Your task to perform on an android device: Go to Android settings Image 0: 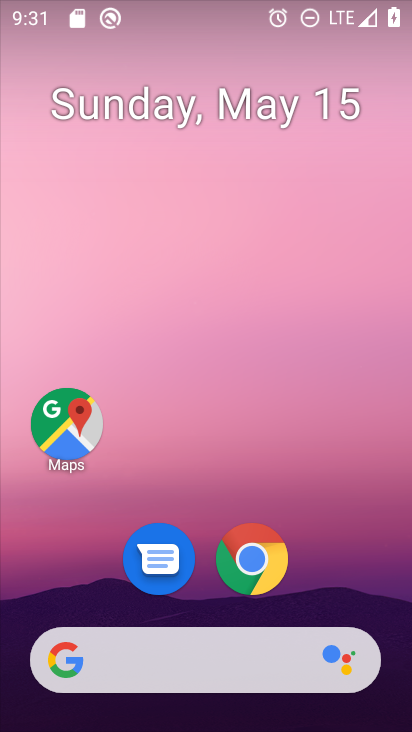
Step 0: drag from (319, 588) to (310, 106)
Your task to perform on an android device: Go to Android settings Image 1: 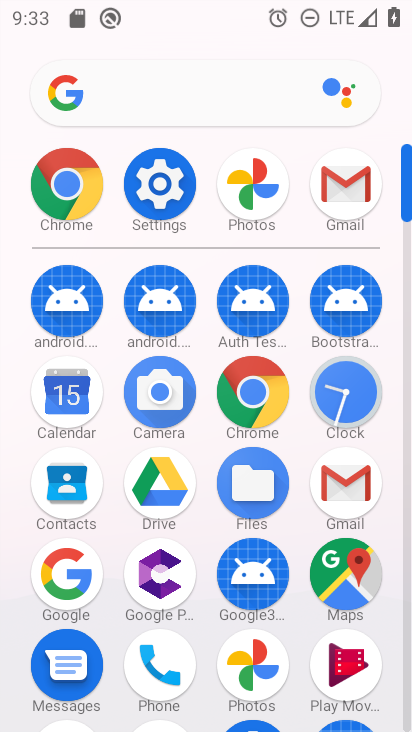
Step 1: click (170, 169)
Your task to perform on an android device: Go to Android settings Image 2: 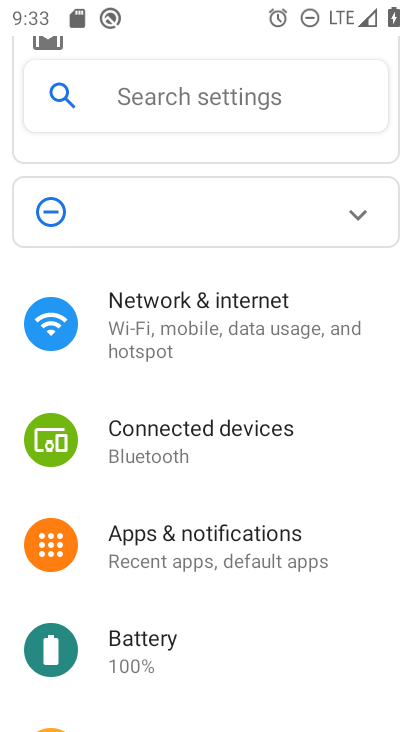
Step 2: task complete